Your task to perform on an android device: Open Amazon Image 0: 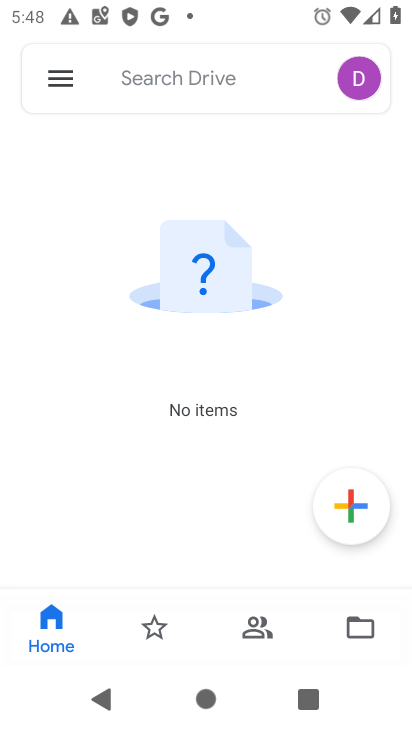
Step 0: press home button
Your task to perform on an android device: Open Amazon Image 1: 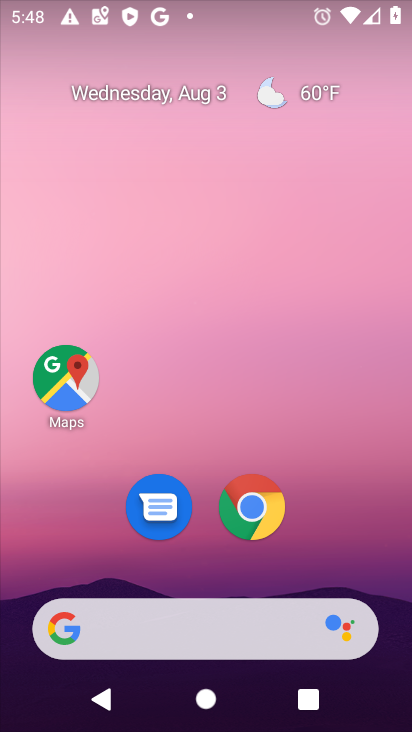
Step 1: drag from (381, 552) to (324, 86)
Your task to perform on an android device: Open Amazon Image 2: 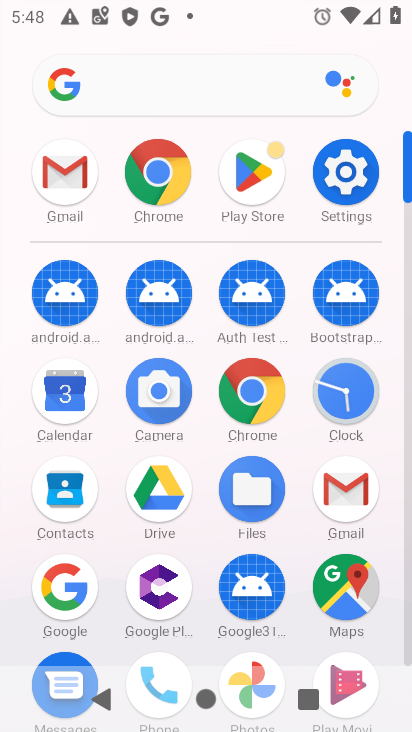
Step 2: click (151, 180)
Your task to perform on an android device: Open Amazon Image 3: 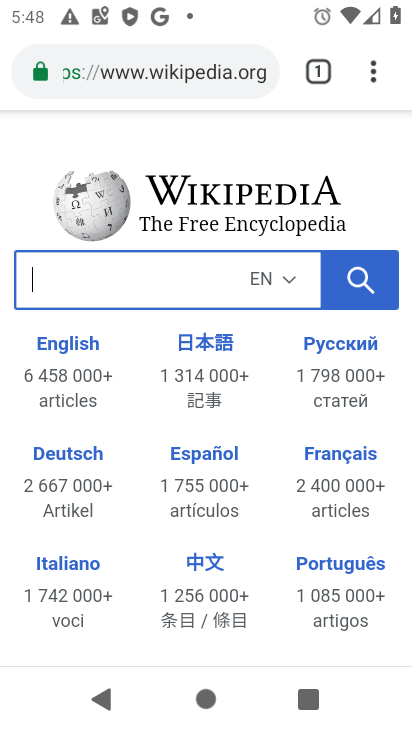
Step 3: click (224, 69)
Your task to perform on an android device: Open Amazon Image 4: 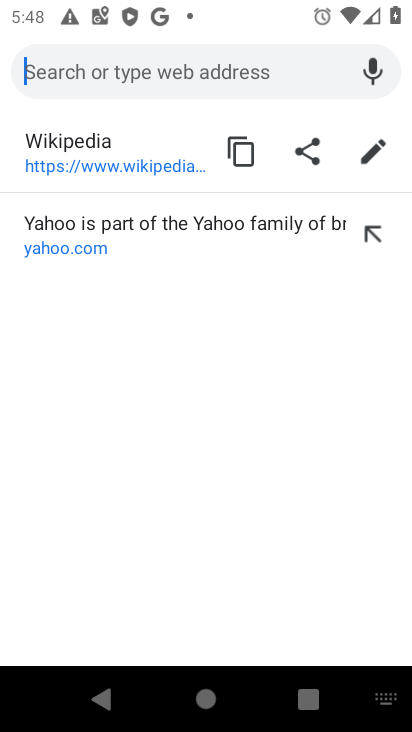
Step 4: type "amazon"
Your task to perform on an android device: Open Amazon Image 5: 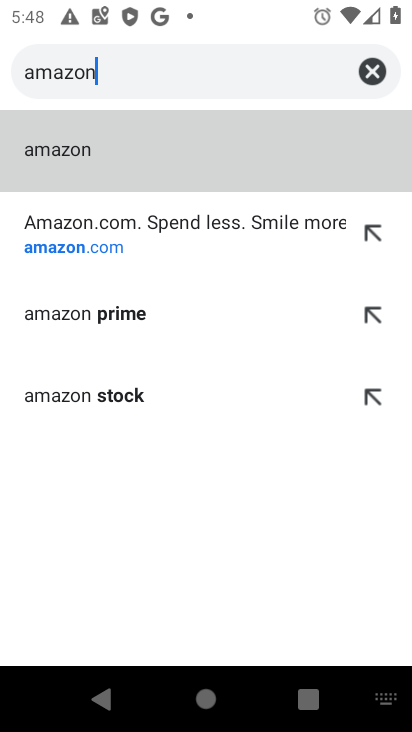
Step 5: click (104, 253)
Your task to perform on an android device: Open Amazon Image 6: 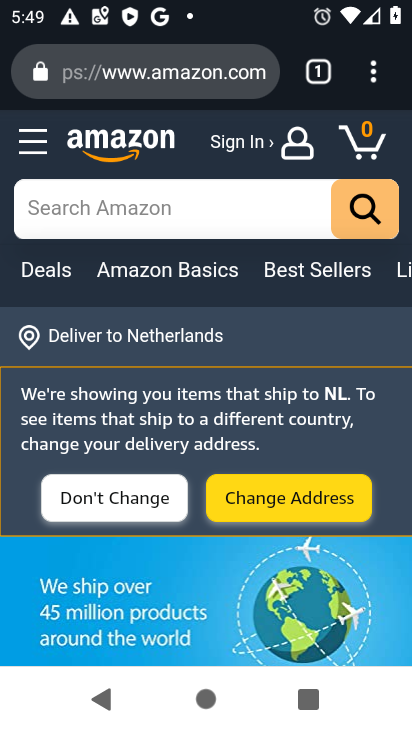
Step 6: task complete